Your task to perform on an android device: turn smart compose on in the gmail app Image 0: 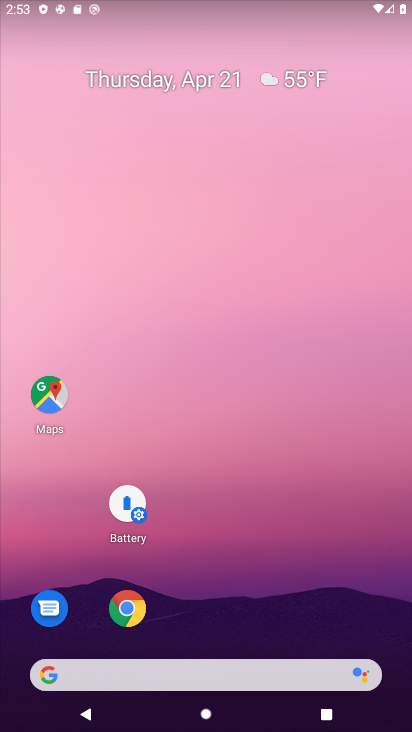
Step 0: drag from (299, 473) to (303, 112)
Your task to perform on an android device: turn smart compose on in the gmail app Image 1: 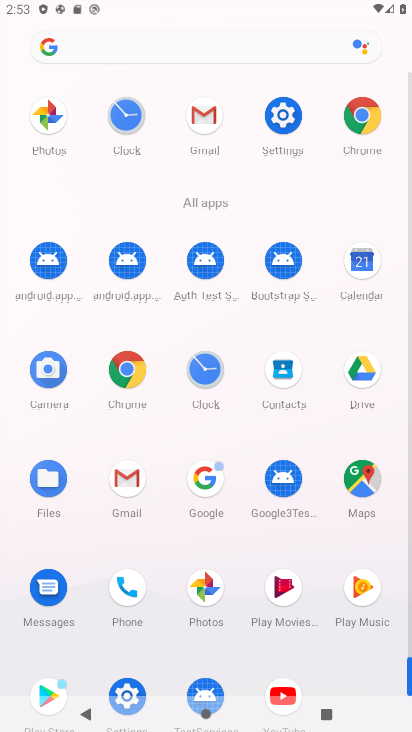
Step 1: click (195, 122)
Your task to perform on an android device: turn smart compose on in the gmail app Image 2: 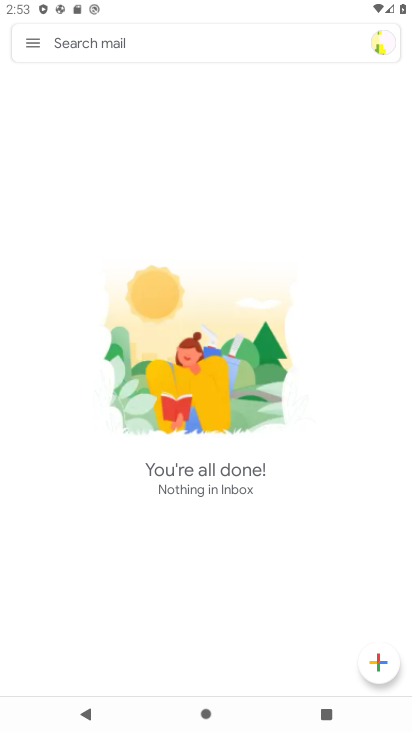
Step 2: click (18, 49)
Your task to perform on an android device: turn smart compose on in the gmail app Image 3: 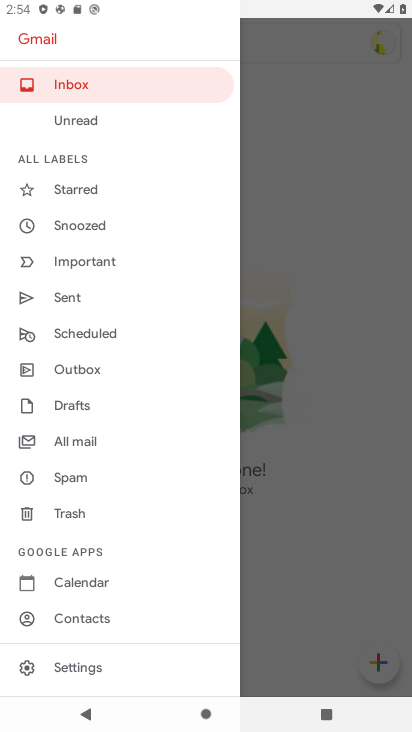
Step 3: click (66, 670)
Your task to perform on an android device: turn smart compose on in the gmail app Image 4: 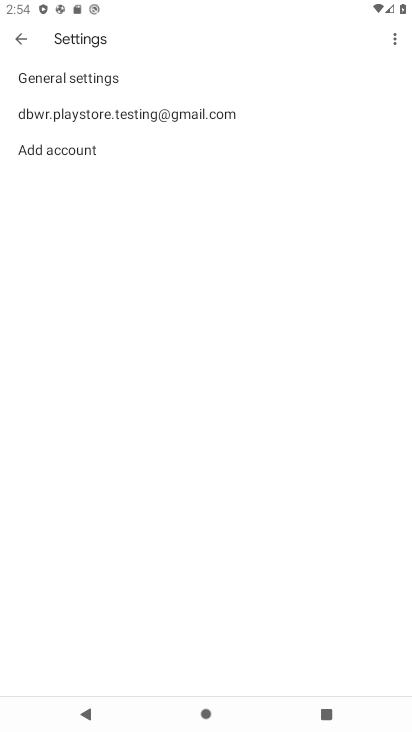
Step 4: click (51, 116)
Your task to perform on an android device: turn smart compose on in the gmail app Image 5: 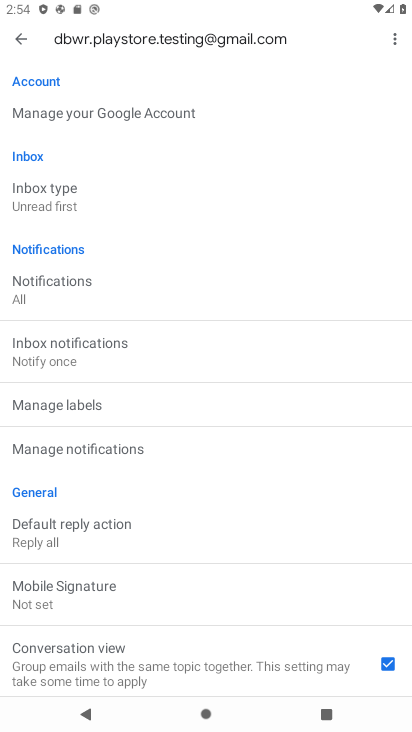
Step 5: drag from (219, 575) to (267, 231)
Your task to perform on an android device: turn smart compose on in the gmail app Image 6: 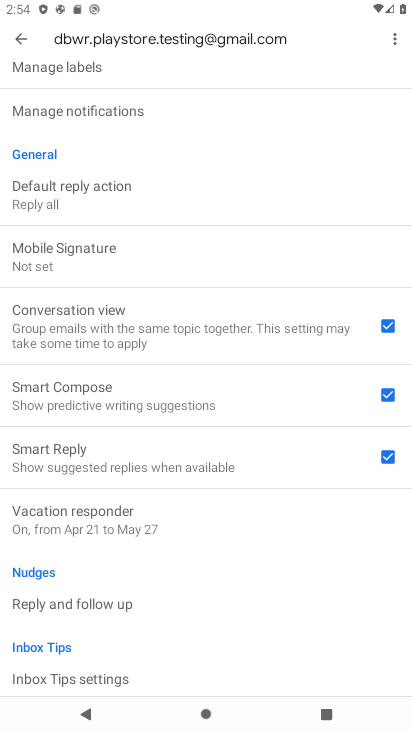
Step 6: drag from (234, 566) to (197, 237)
Your task to perform on an android device: turn smart compose on in the gmail app Image 7: 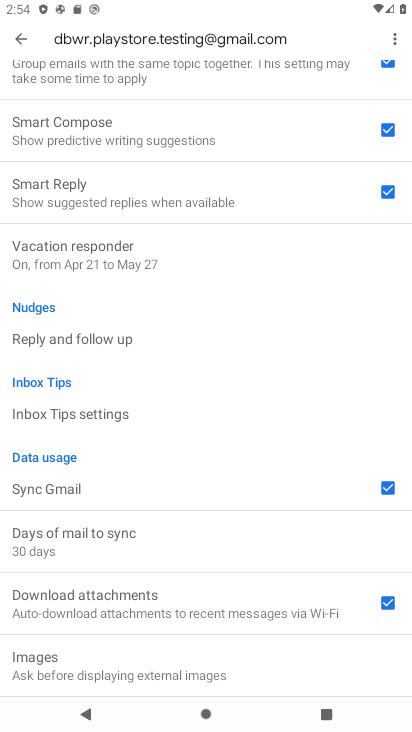
Step 7: click (391, 131)
Your task to perform on an android device: turn smart compose on in the gmail app Image 8: 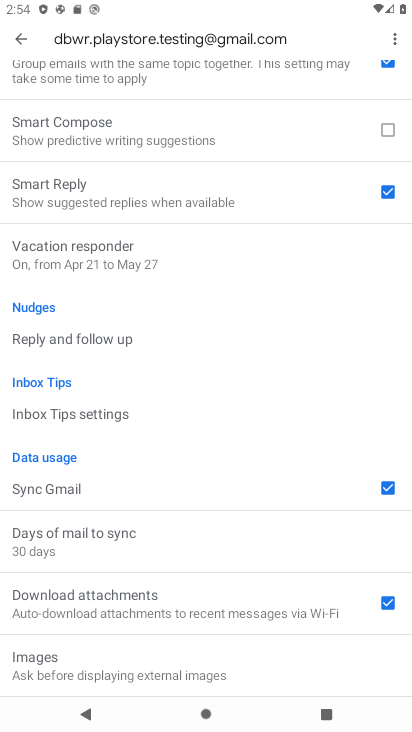
Step 8: task complete